Your task to perform on an android device: turn off translation in the chrome app Image 0: 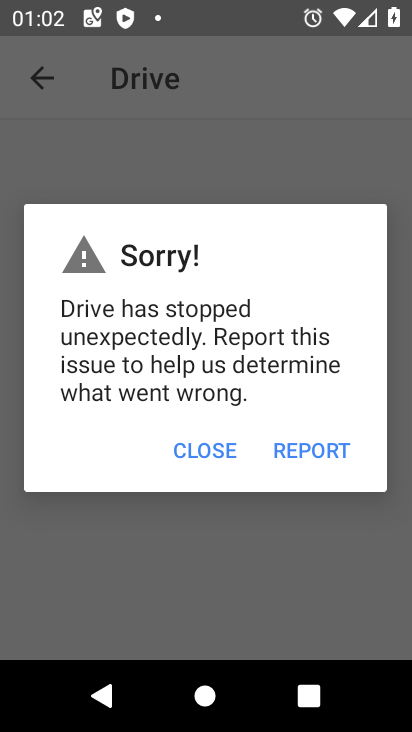
Step 0: press home button
Your task to perform on an android device: turn off translation in the chrome app Image 1: 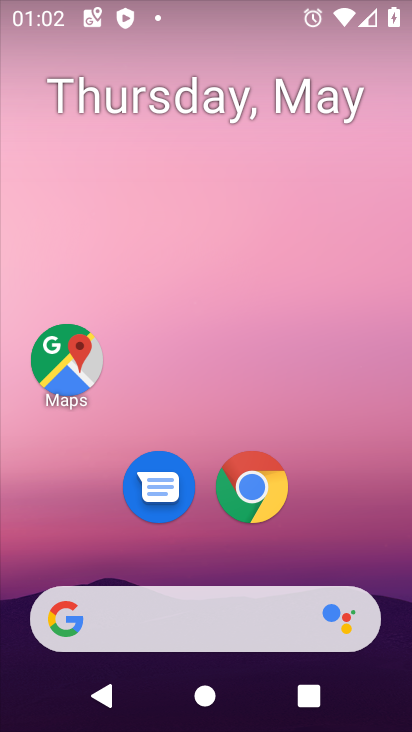
Step 1: click (246, 485)
Your task to perform on an android device: turn off translation in the chrome app Image 2: 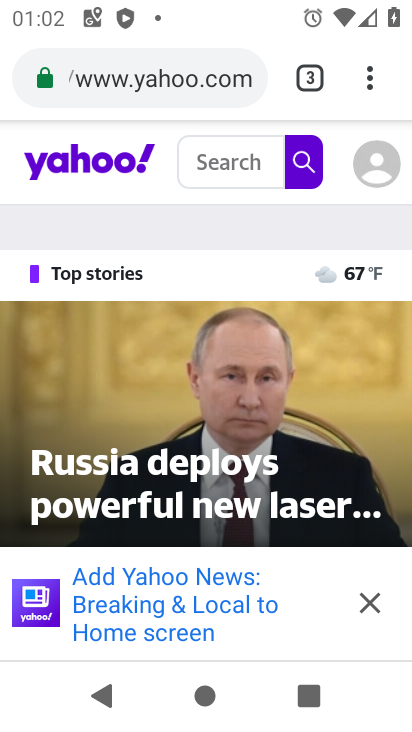
Step 2: click (367, 87)
Your task to perform on an android device: turn off translation in the chrome app Image 3: 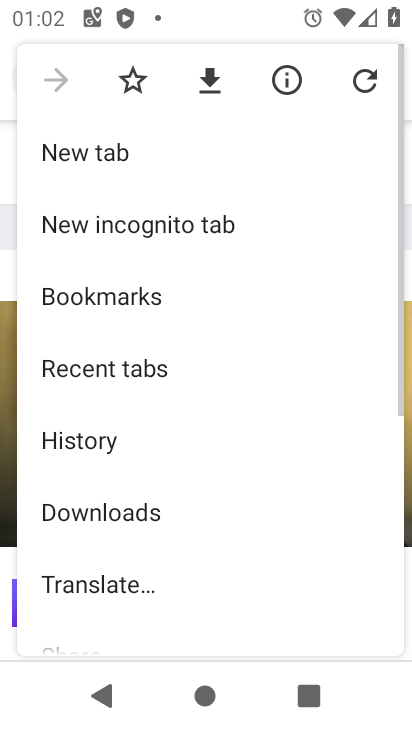
Step 3: drag from (241, 583) to (197, 0)
Your task to perform on an android device: turn off translation in the chrome app Image 4: 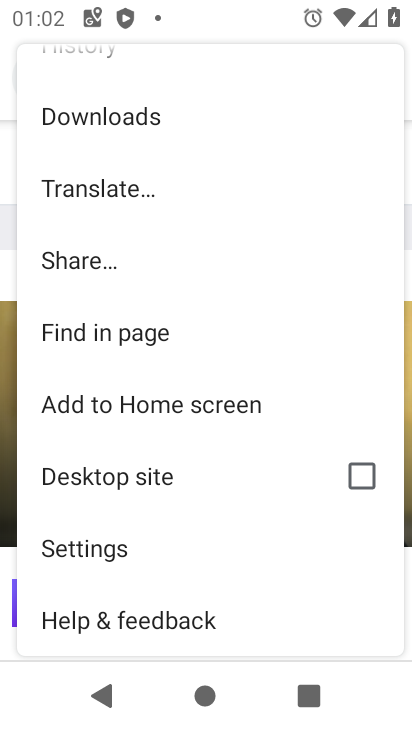
Step 4: click (85, 549)
Your task to perform on an android device: turn off translation in the chrome app Image 5: 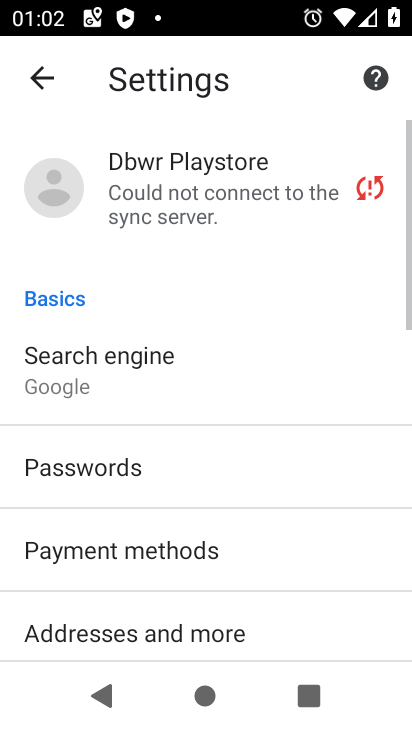
Step 5: drag from (183, 566) to (215, 31)
Your task to perform on an android device: turn off translation in the chrome app Image 6: 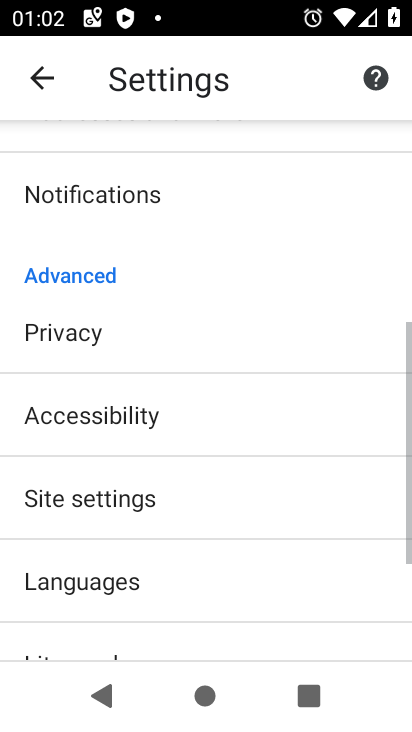
Step 6: click (111, 555)
Your task to perform on an android device: turn off translation in the chrome app Image 7: 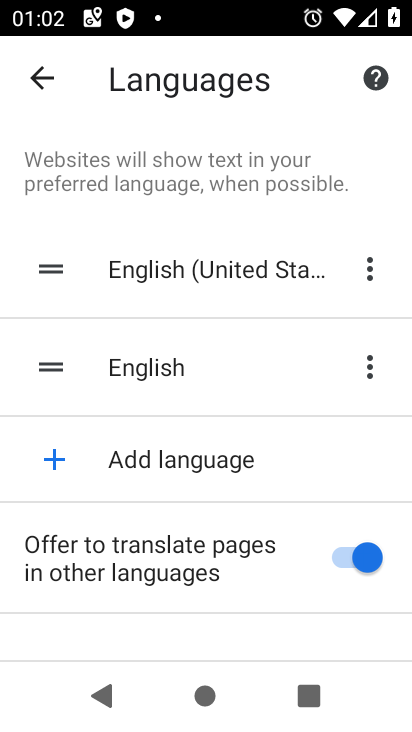
Step 7: click (349, 565)
Your task to perform on an android device: turn off translation in the chrome app Image 8: 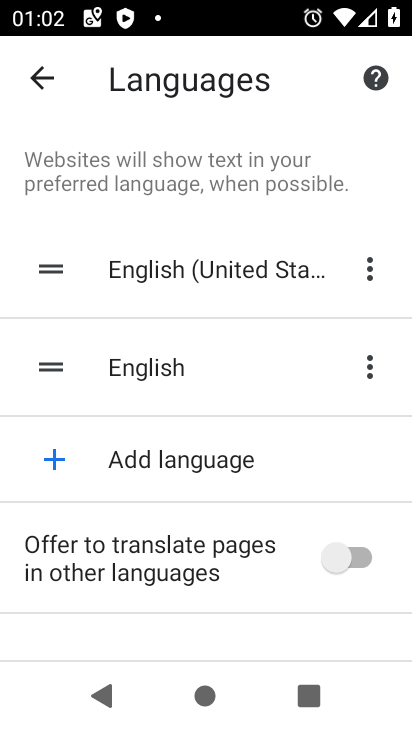
Step 8: task complete